Your task to perform on an android device: Do I have any events tomorrow? Image 0: 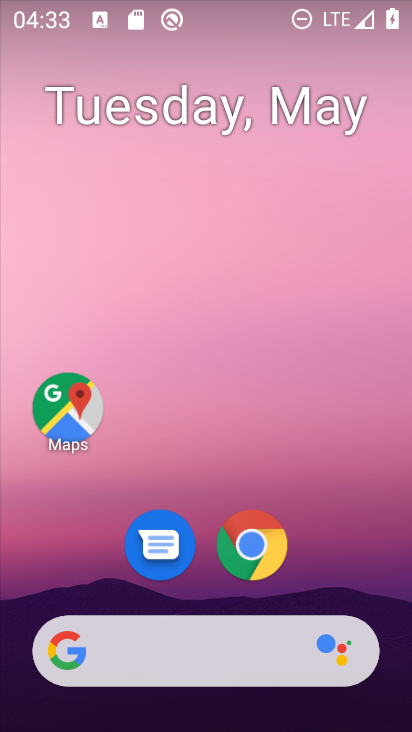
Step 0: drag from (386, 618) to (325, 121)
Your task to perform on an android device: Do I have any events tomorrow? Image 1: 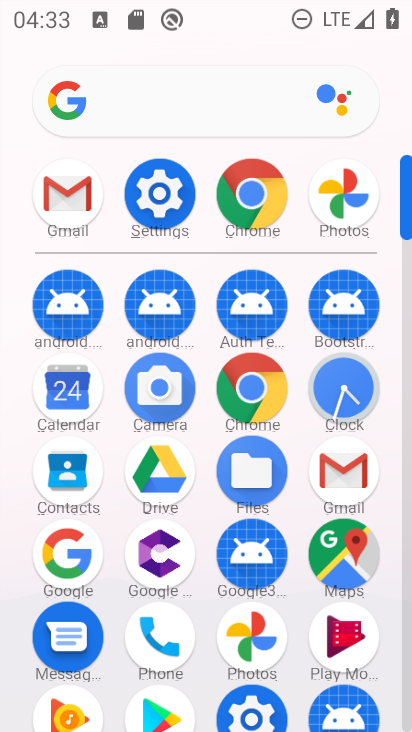
Step 1: click (72, 388)
Your task to perform on an android device: Do I have any events tomorrow? Image 2: 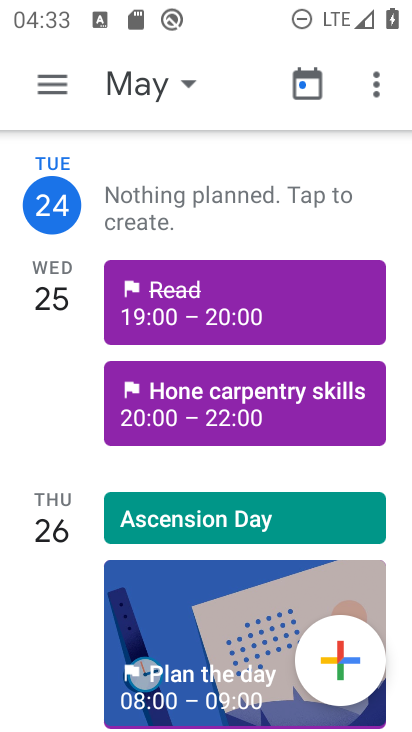
Step 2: click (54, 85)
Your task to perform on an android device: Do I have any events tomorrow? Image 3: 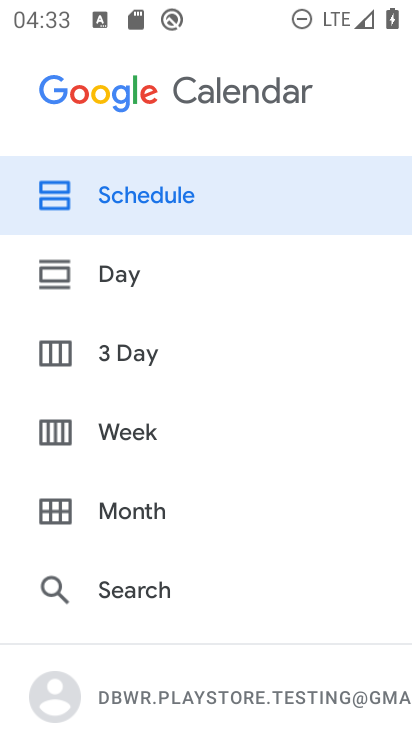
Step 3: click (116, 277)
Your task to perform on an android device: Do I have any events tomorrow? Image 4: 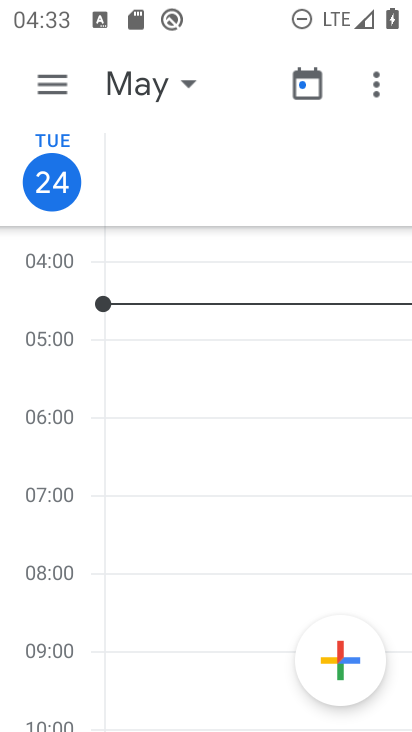
Step 4: click (183, 87)
Your task to perform on an android device: Do I have any events tomorrow? Image 5: 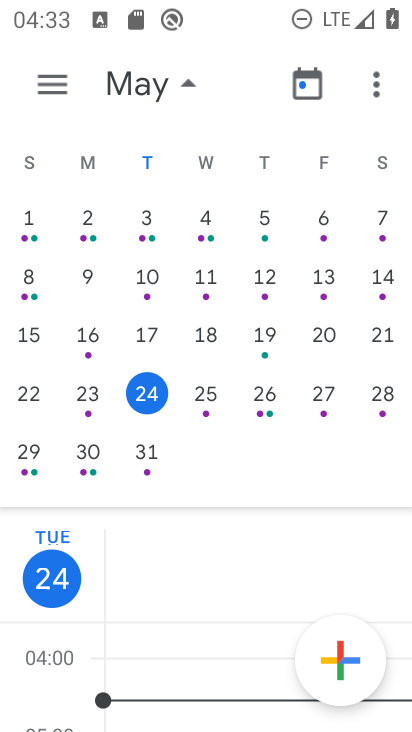
Step 5: click (201, 395)
Your task to perform on an android device: Do I have any events tomorrow? Image 6: 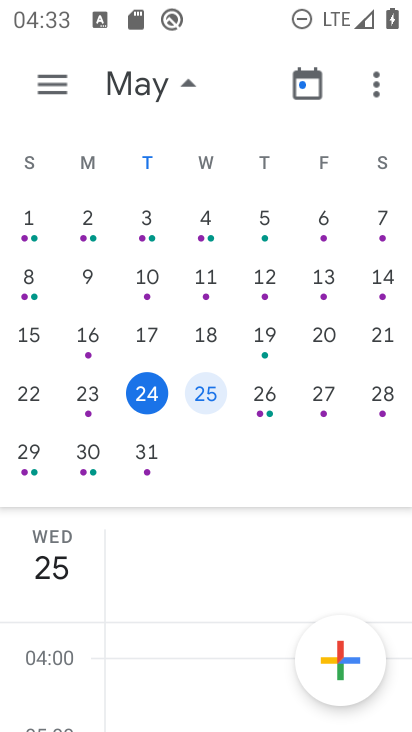
Step 6: task complete